Your task to perform on an android device: Go to network settings Image 0: 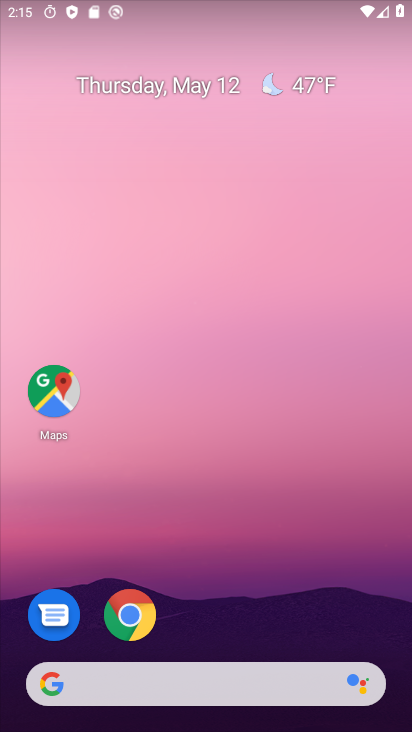
Step 0: drag from (238, 598) to (198, 111)
Your task to perform on an android device: Go to network settings Image 1: 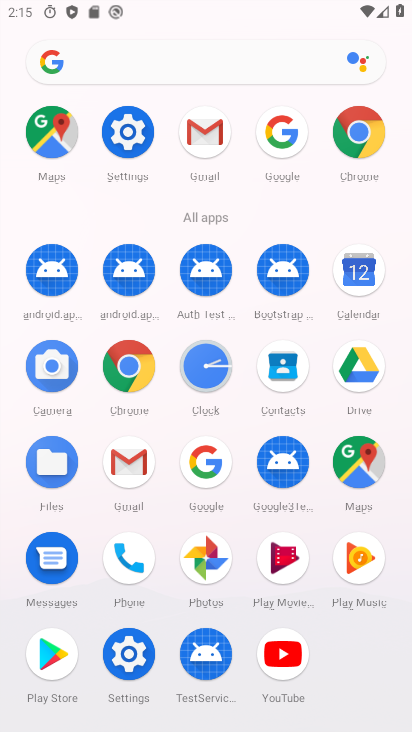
Step 1: click (128, 126)
Your task to perform on an android device: Go to network settings Image 2: 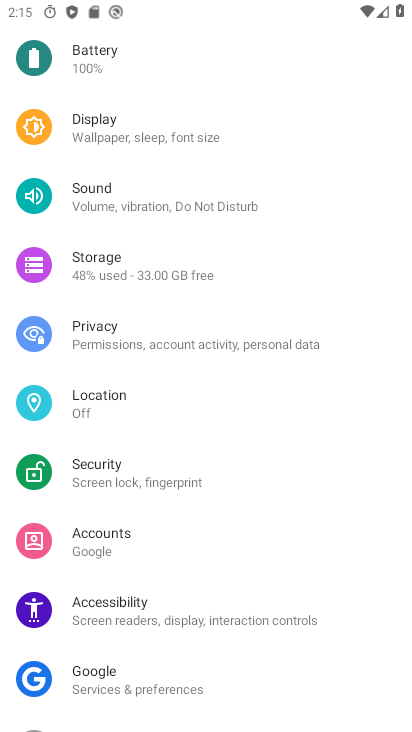
Step 2: drag from (132, 94) to (268, 576)
Your task to perform on an android device: Go to network settings Image 3: 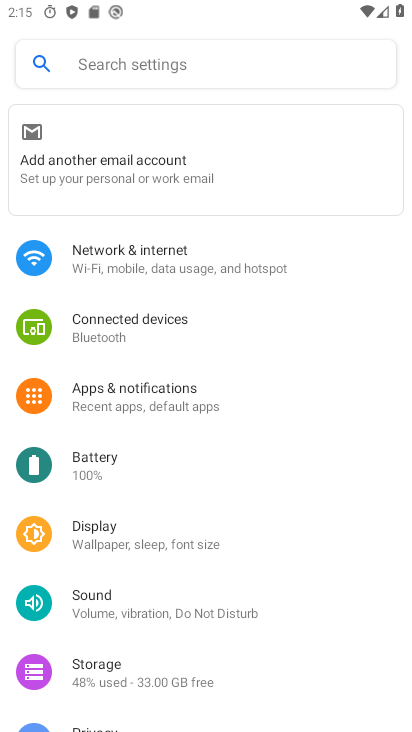
Step 3: click (155, 256)
Your task to perform on an android device: Go to network settings Image 4: 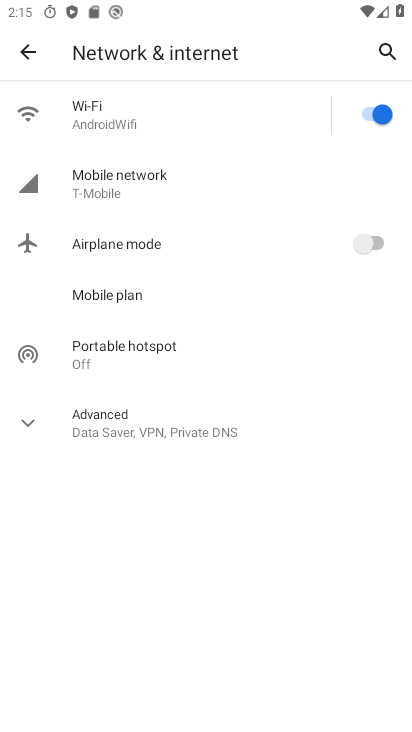
Step 4: click (119, 183)
Your task to perform on an android device: Go to network settings Image 5: 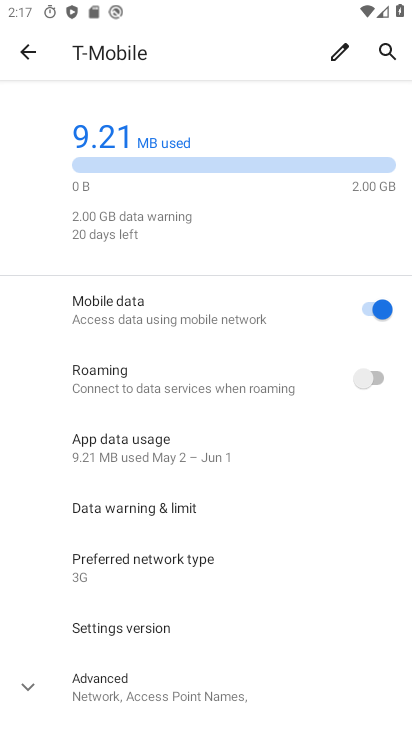
Step 5: task complete